Your task to perform on an android device: change the clock display to show seconds Image 0: 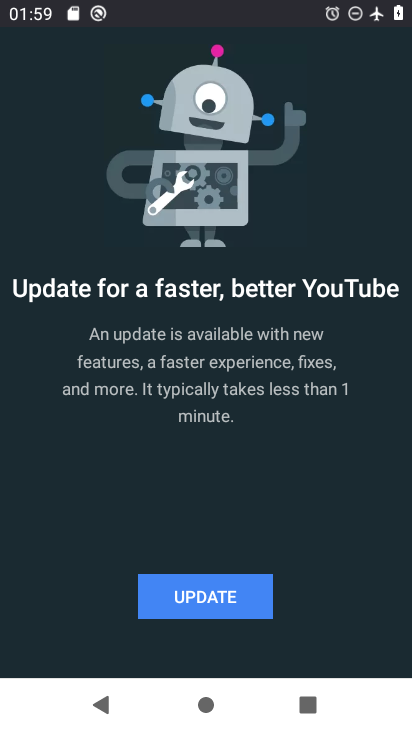
Step 0: press home button
Your task to perform on an android device: change the clock display to show seconds Image 1: 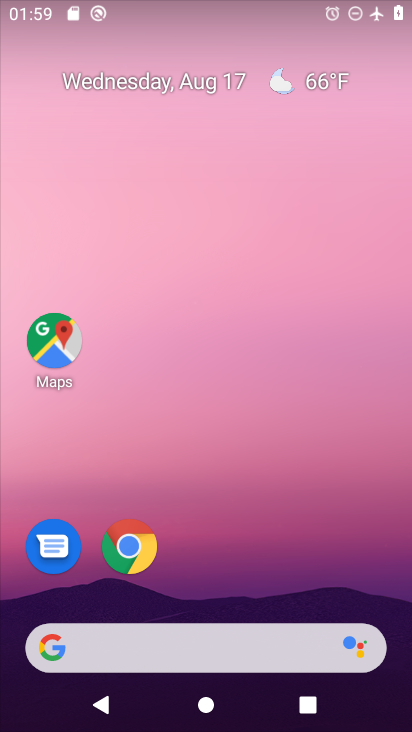
Step 1: drag from (227, 549) to (189, 54)
Your task to perform on an android device: change the clock display to show seconds Image 2: 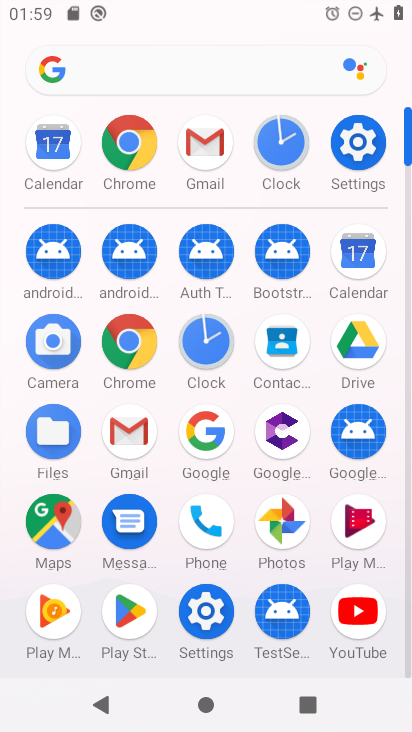
Step 2: click (276, 147)
Your task to perform on an android device: change the clock display to show seconds Image 3: 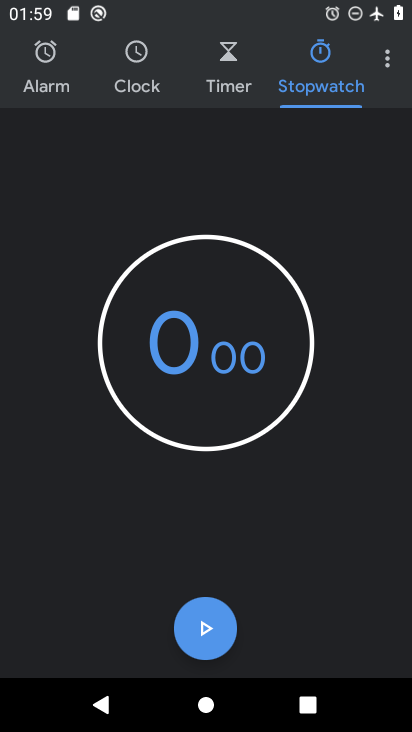
Step 3: click (391, 62)
Your task to perform on an android device: change the clock display to show seconds Image 4: 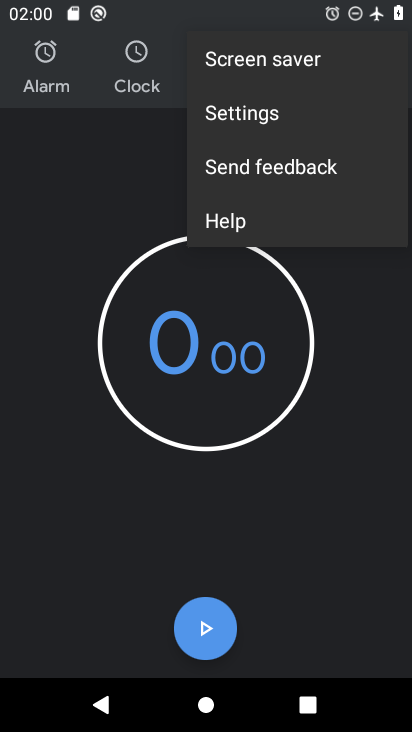
Step 4: click (266, 113)
Your task to perform on an android device: change the clock display to show seconds Image 5: 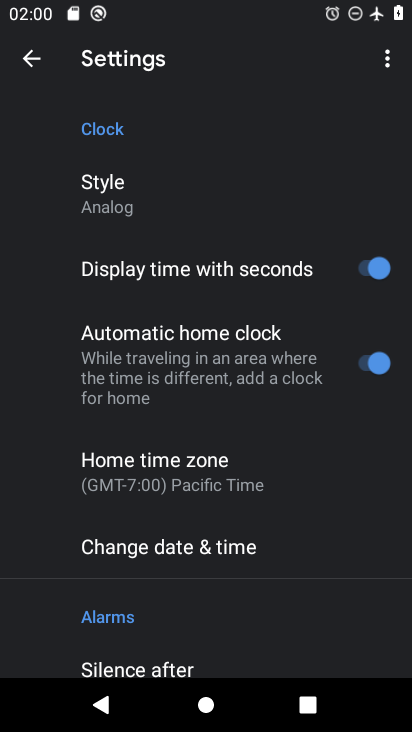
Step 5: task complete